Your task to perform on an android device: open a bookmark in the chrome app Image 0: 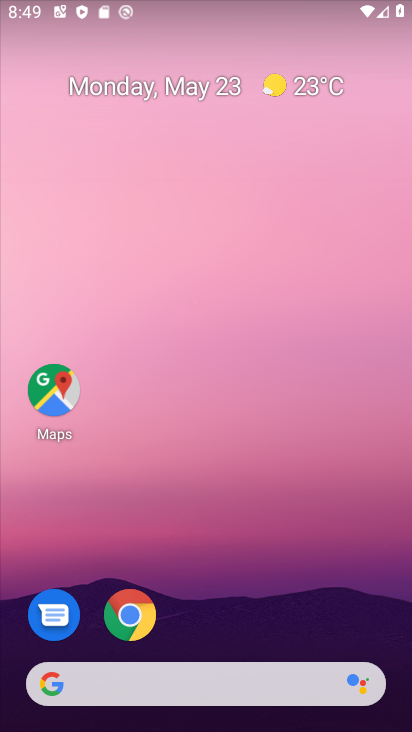
Step 0: click (132, 614)
Your task to perform on an android device: open a bookmark in the chrome app Image 1: 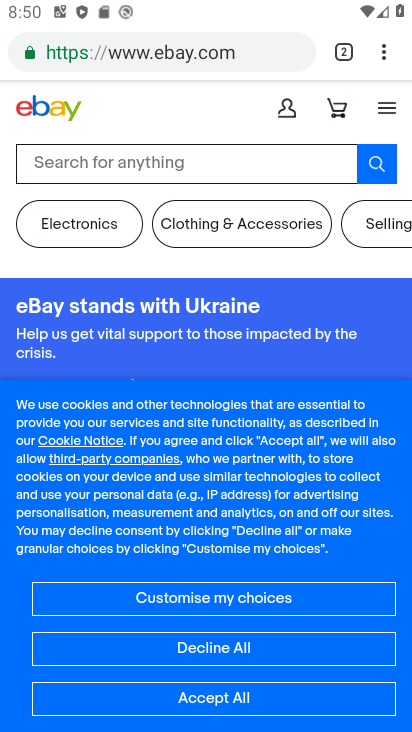
Step 1: click (385, 49)
Your task to perform on an android device: open a bookmark in the chrome app Image 2: 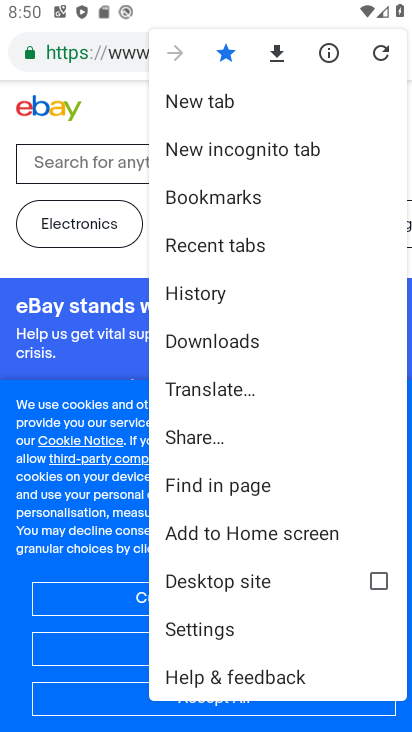
Step 2: click (234, 202)
Your task to perform on an android device: open a bookmark in the chrome app Image 3: 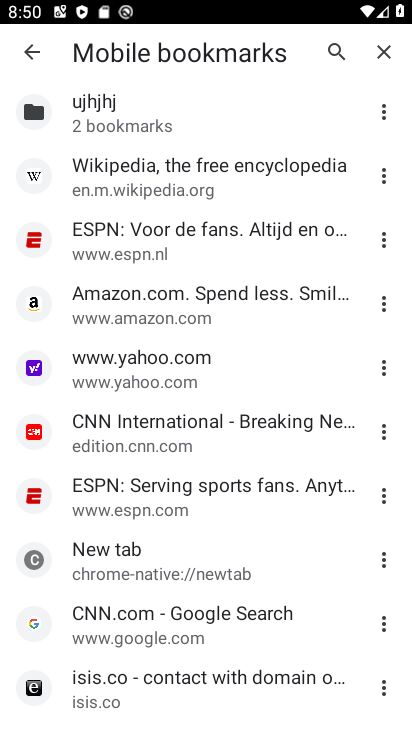
Step 3: task complete